Your task to perform on an android device: toggle airplane mode Image 0: 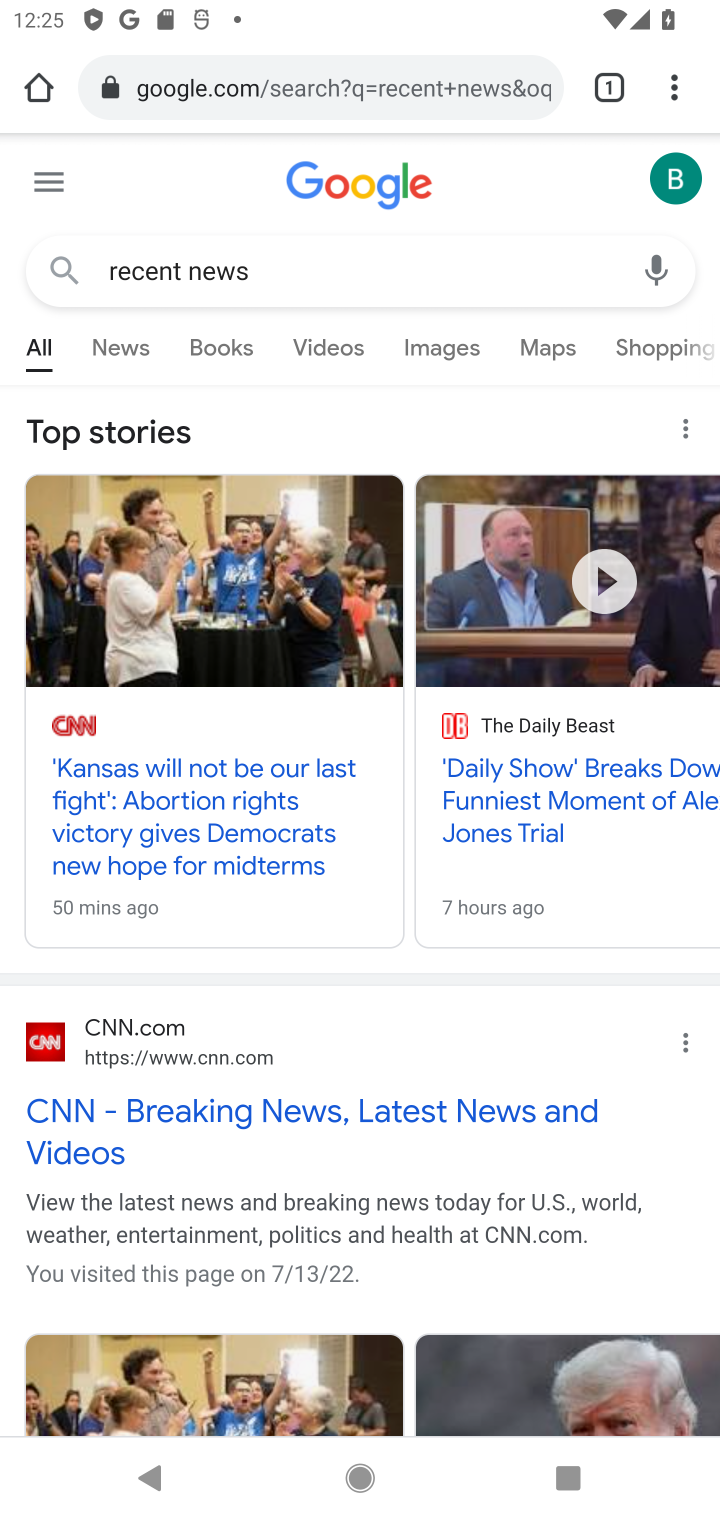
Step 0: drag from (510, 1) to (312, 1129)
Your task to perform on an android device: toggle airplane mode Image 1: 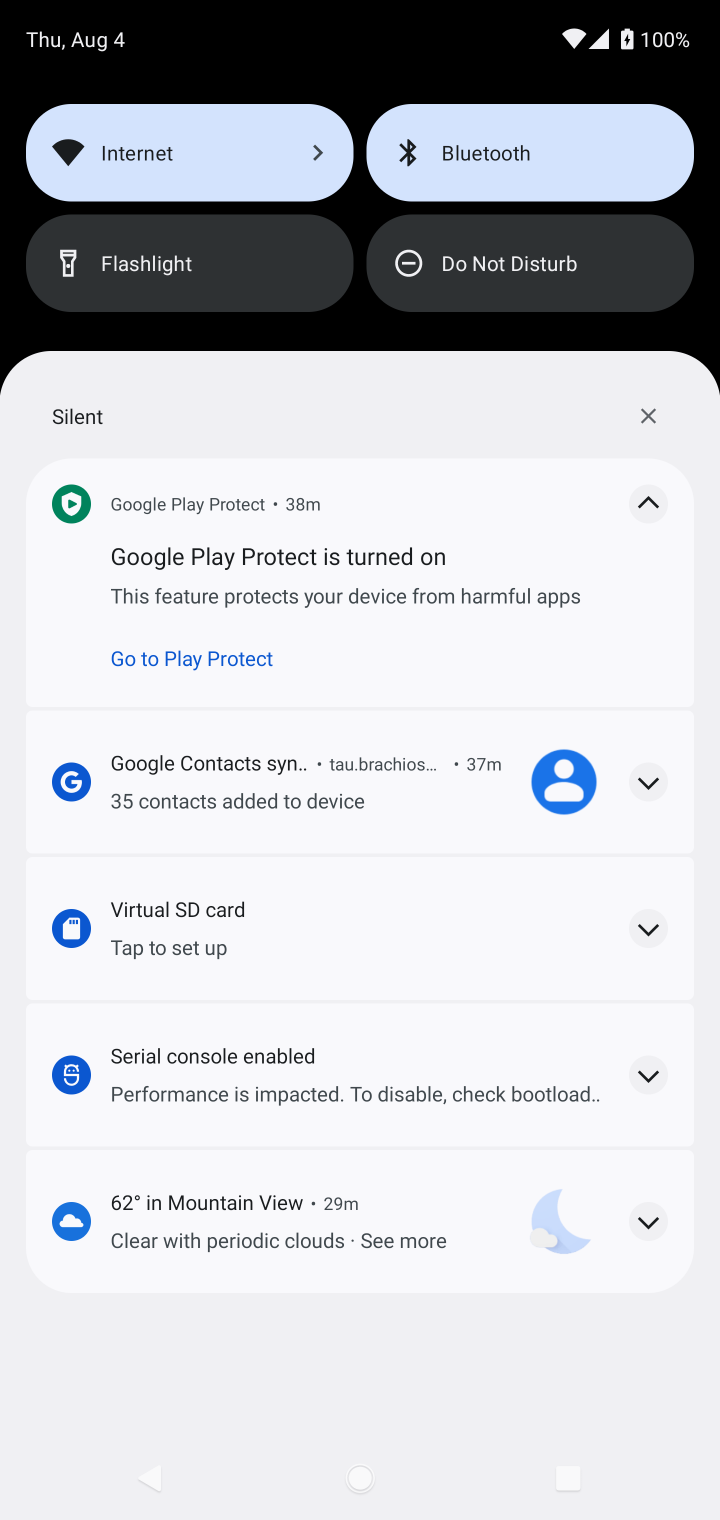
Step 1: task complete